Your task to perform on an android device: change timer sound Image 0: 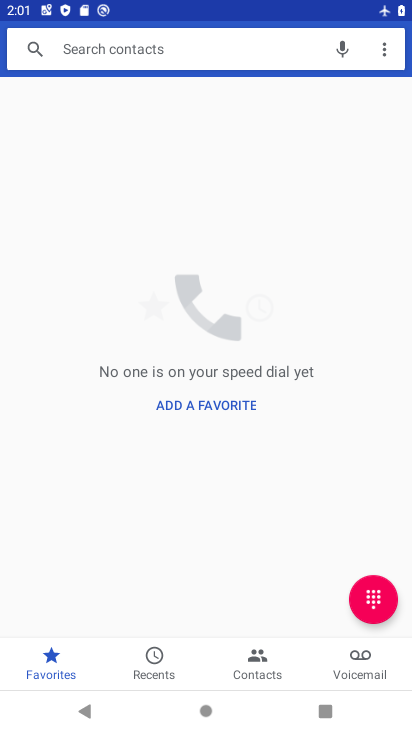
Step 0: press home button
Your task to perform on an android device: change timer sound Image 1: 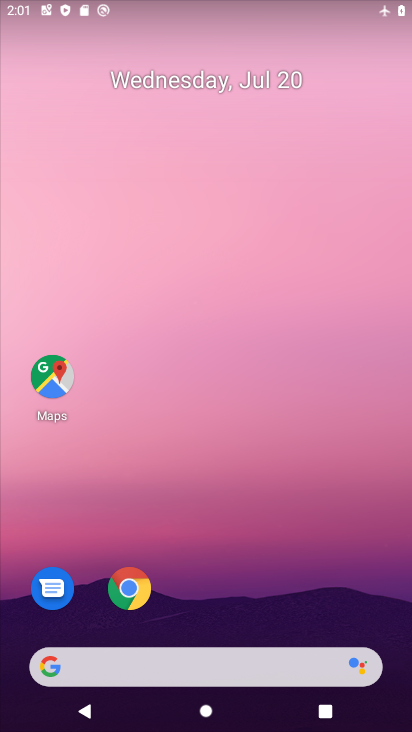
Step 1: drag from (177, 513) to (257, 15)
Your task to perform on an android device: change timer sound Image 2: 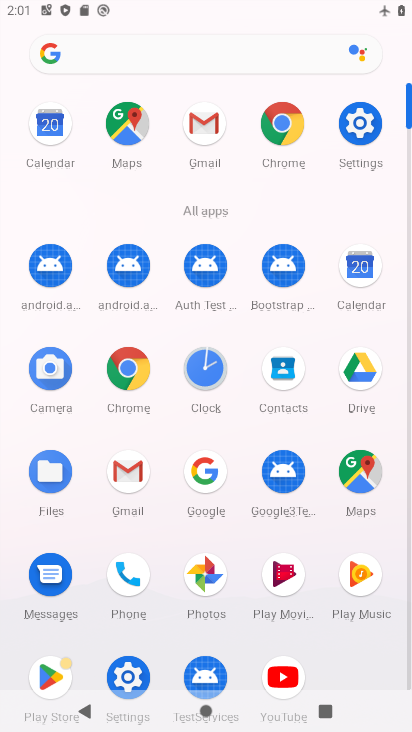
Step 2: click (188, 367)
Your task to perform on an android device: change timer sound Image 3: 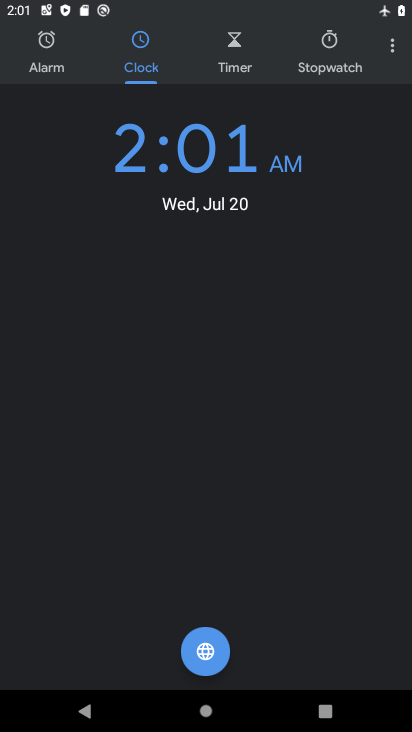
Step 3: click (398, 51)
Your task to perform on an android device: change timer sound Image 4: 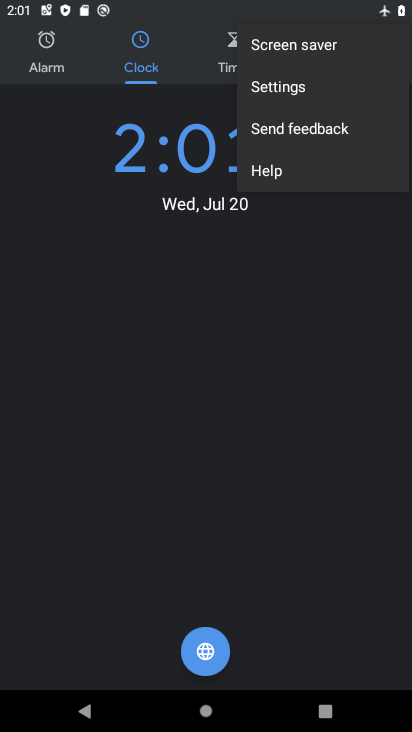
Step 4: click (297, 90)
Your task to perform on an android device: change timer sound Image 5: 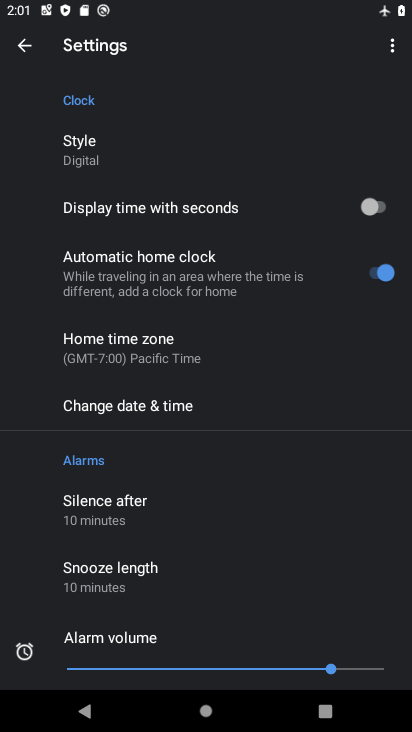
Step 5: drag from (113, 555) to (184, 99)
Your task to perform on an android device: change timer sound Image 6: 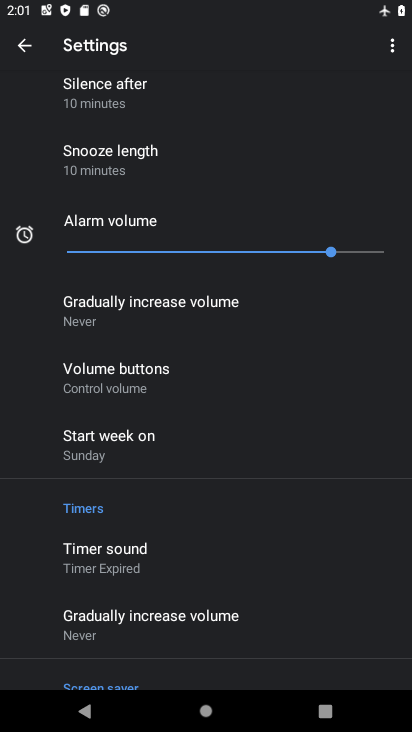
Step 6: click (96, 550)
Your task to perform on an android device: change timer sound Image 7: 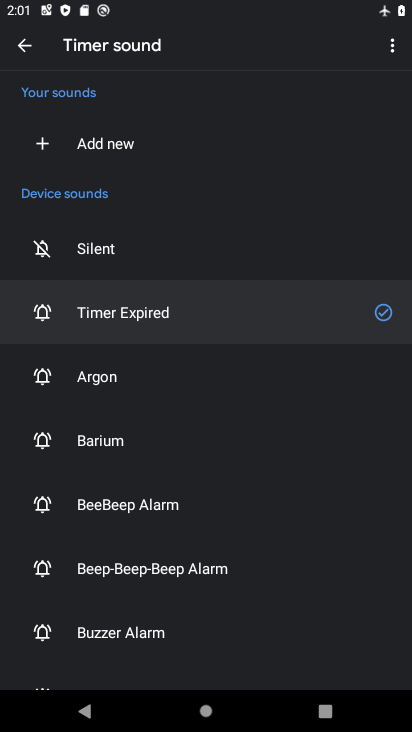
Step 7: click (94, 382)
Your task to perform on an android device: change timer sound Image 8: 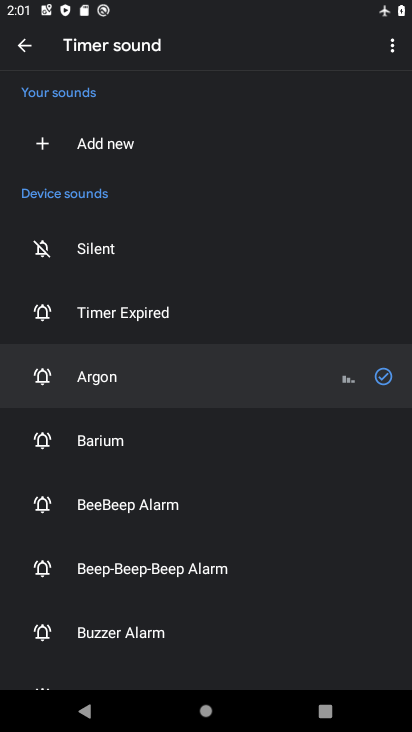
Step 8: task complete